Your task to perform on an android device: Go to location settings Image 0: 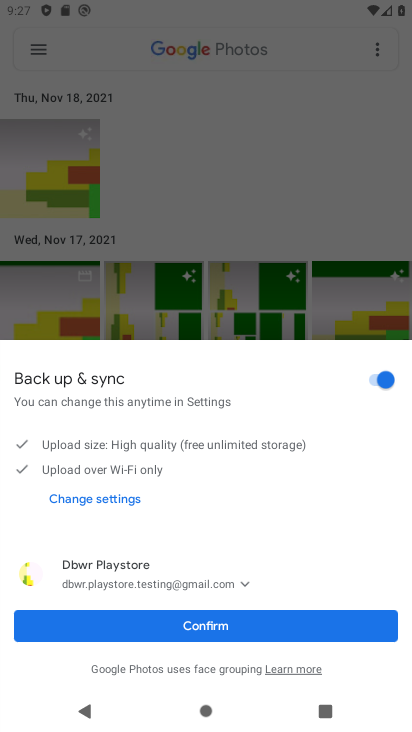
Step 0: press home button
Your task to perform on an android device: Go to location settings Image 1: 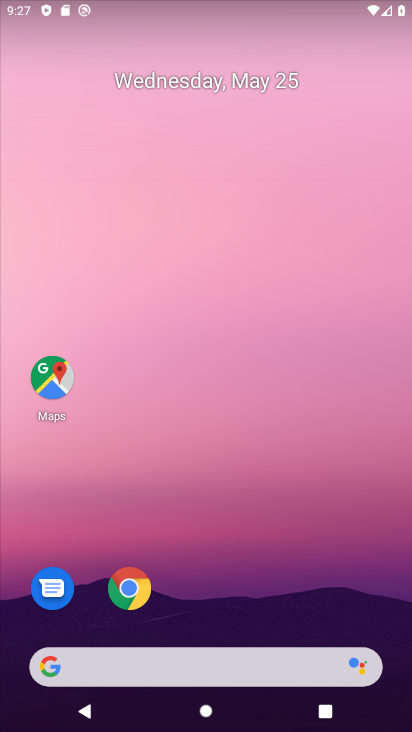
Step 1: drag from (233, 564) to (267, 29)
Your task to perform on an android device: Go to location settings Image 2: 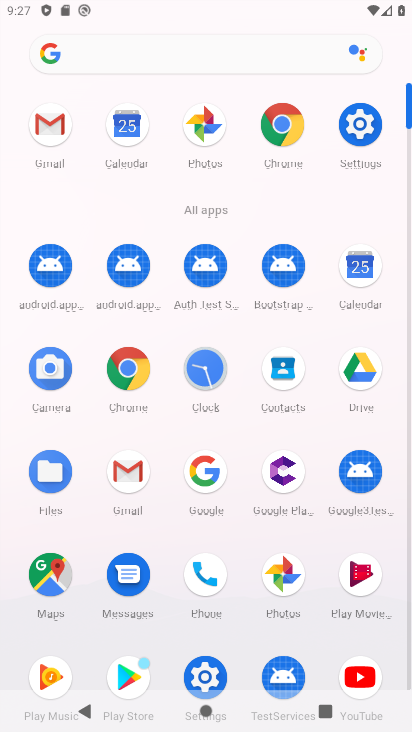
Step 2: click (362, 124)
Your task to perform on an android device: Go to location settings Image 3: 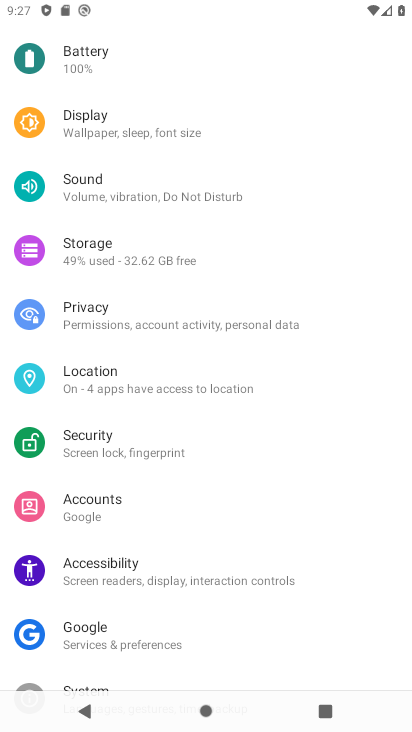
Step 3: click (94, 396)
Your task to perform on an android device: Go to location settings Image 4: 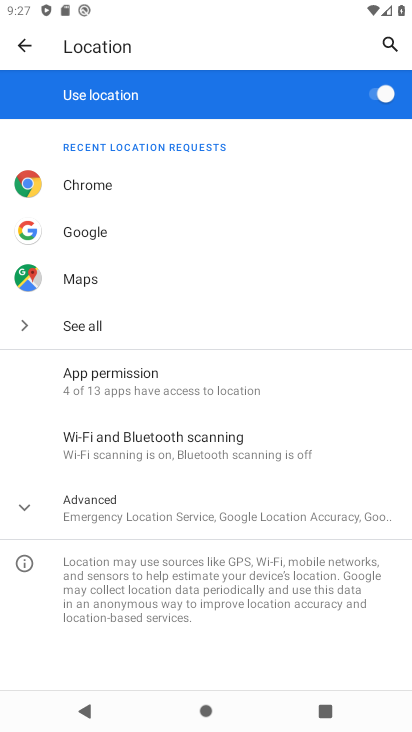
Step 4: task complete